Your task to perform on an android device: open a new tab in the chrome app Image 0: 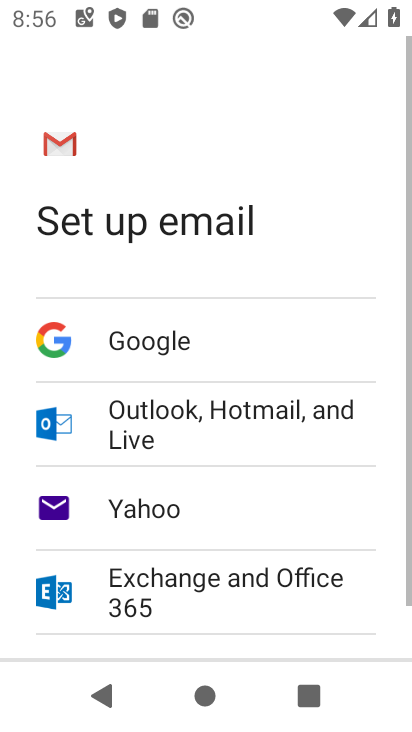
Step 0: press back button
Your task to perform on an android device: open a new tab in the chrome app Image 1: 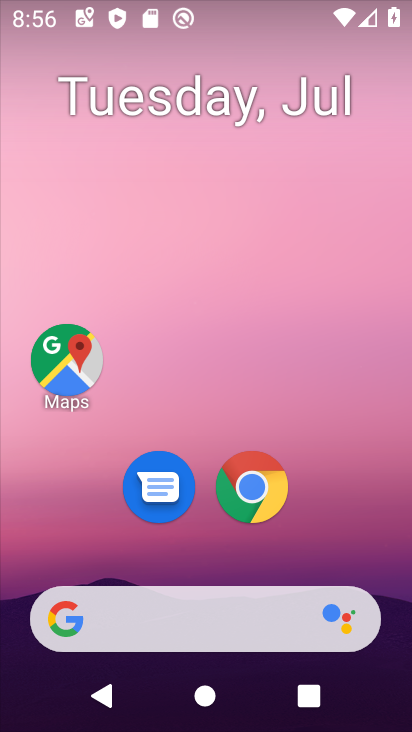
Step 1: click (253, 477)
Your task to perform on an android device: open a new tab in the chrome app Image 2: 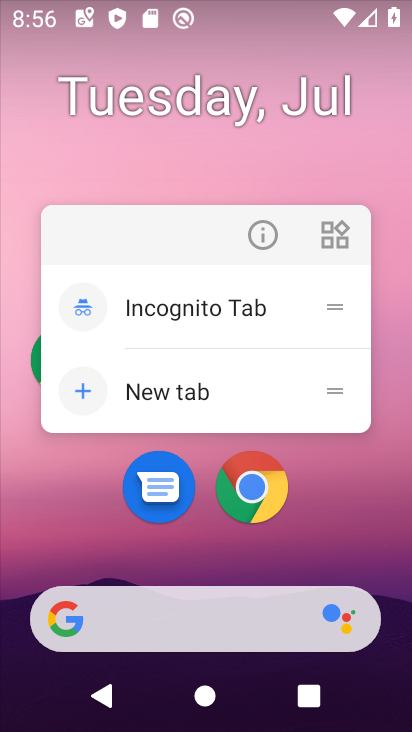
Step 2: click (247, 490)
Your task to perform on an android device: open a new tab in the chrome app Image 3: 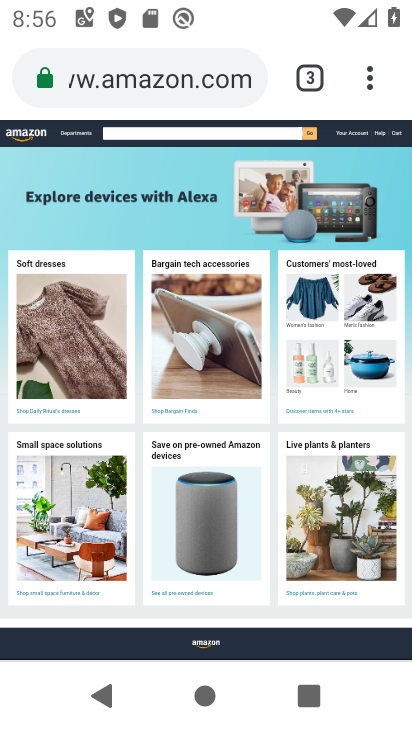
Step 3: task complete